Your task to perform on an android device: turn on notifications settings in the gmail app Image 0: 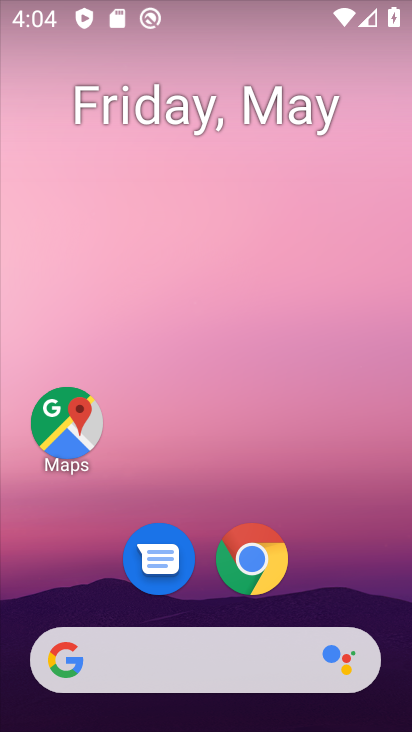
Step 0: drag from (319, 576) to (306, 327)
Your task to perform on an android device: turn on notifications settings in the gmail app Image 1: 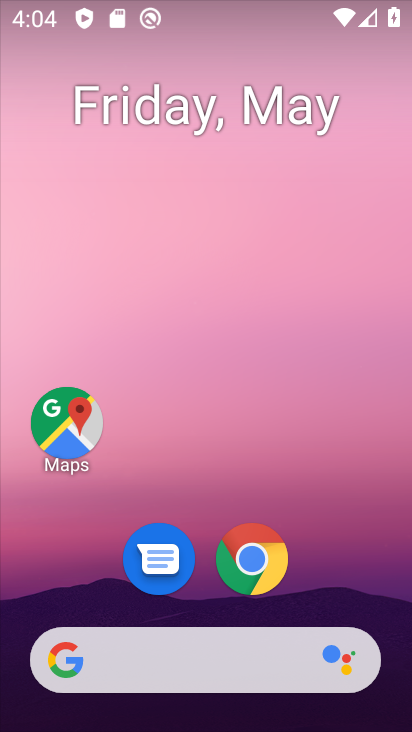
Step 1: drag from (343, 565) to (325, 447)
Your task to perform on an android device: turn on notifications settings in the gmail app Image 2: 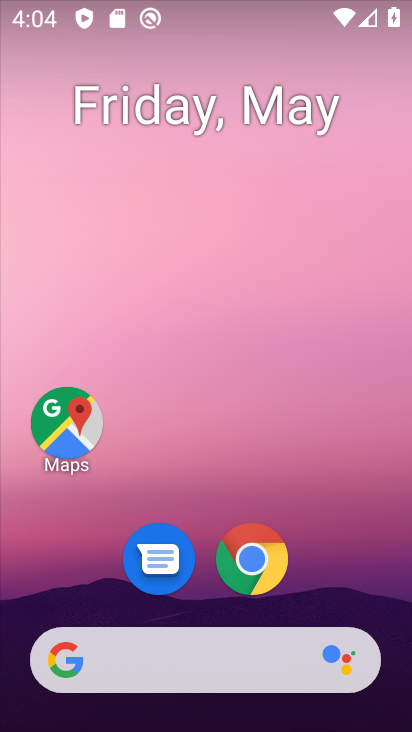
Step 2: drag from (342, 519) to (315, 205)
Your task to perform on an android device: turn on notifications settings in the gmail app Image 3: 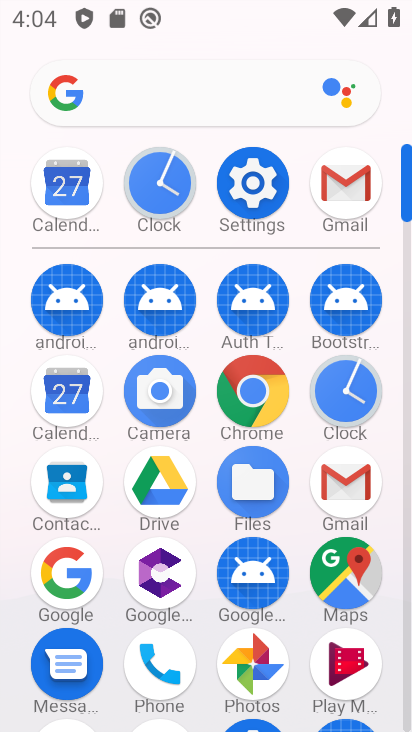
Step 3: click (335, 178)
Your task to perform on an android device: turn on notifications settings in the gmail app Image 4: 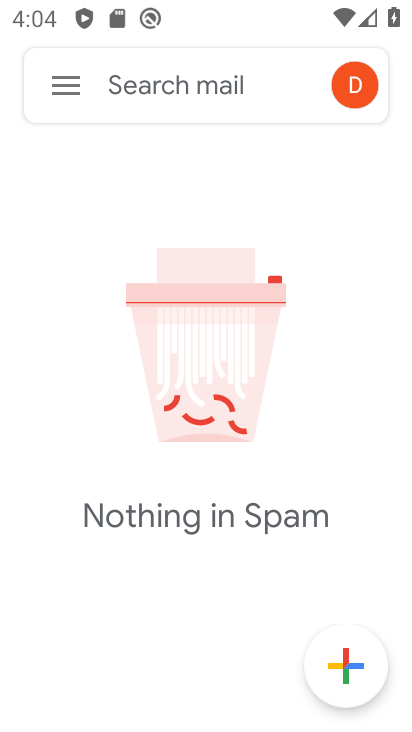
Step 4: click (36, 96)
Your task to perform on an android device: turn on notifications settings in the gmail app Image 5: 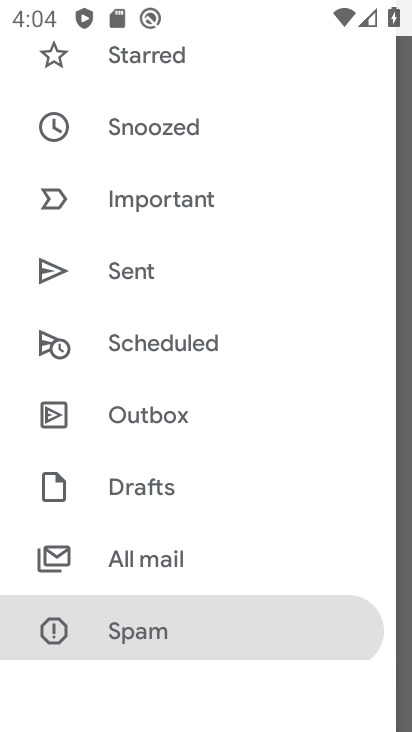
Step 5: drag from (257, 522) to (173, 1)
Your task to perform on an android device: turn on notifications settings in the gmail app Image 6: 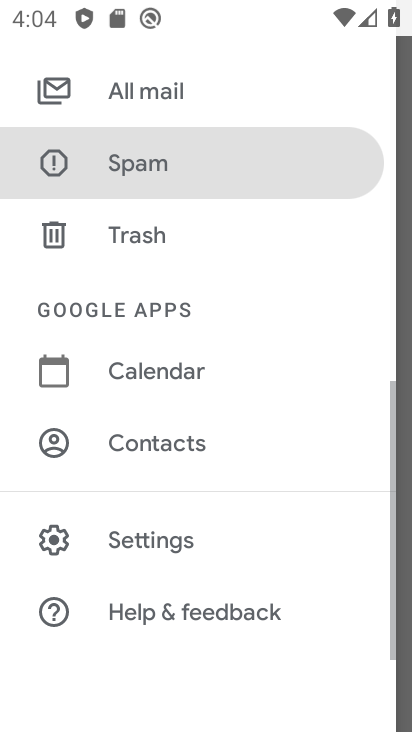
Step 6: click (250, 514)
Your task to perform on an android device: turn on notifications settings in the gmail app Image 7: 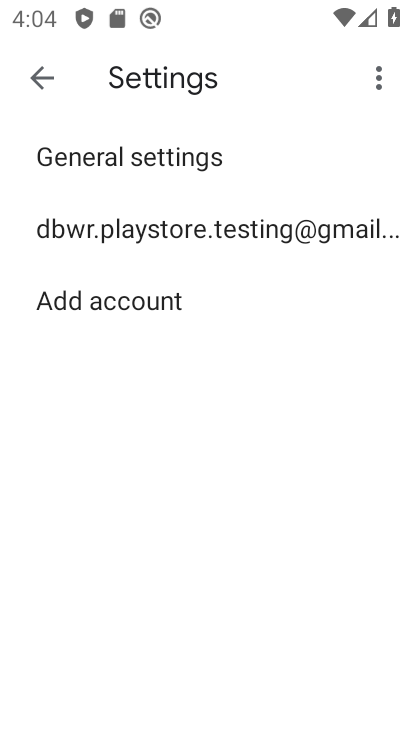
Step 7: click (128, 148)
Your task to perform on an android device: turn on notifications settings in the gmail app Image 8: 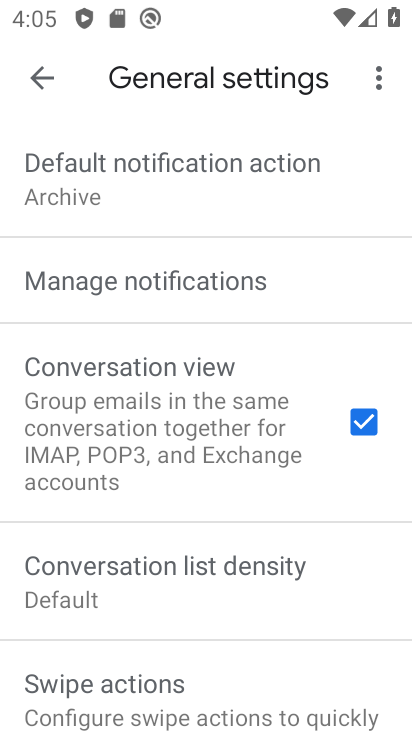
Step 8: drag from (213, 441) to (178, 11)
Your task to perform on an android device: turn on notifications settings in the gmail app Image 9: 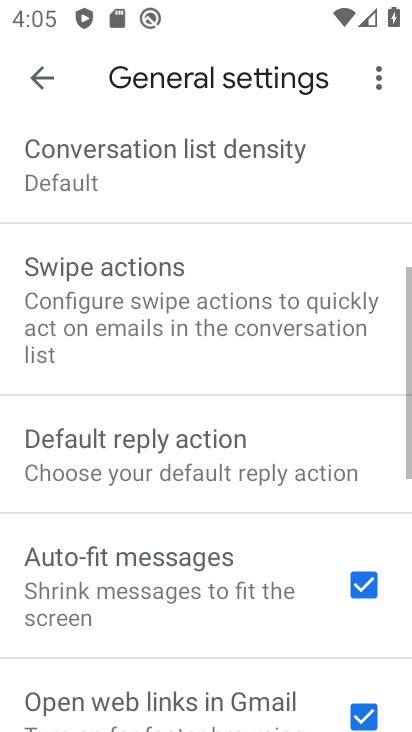
Step 9: drag from (237, 475) to (198, 19)
Your task to perform on an android device: turn on notifications settings in the gmail app Image 10: 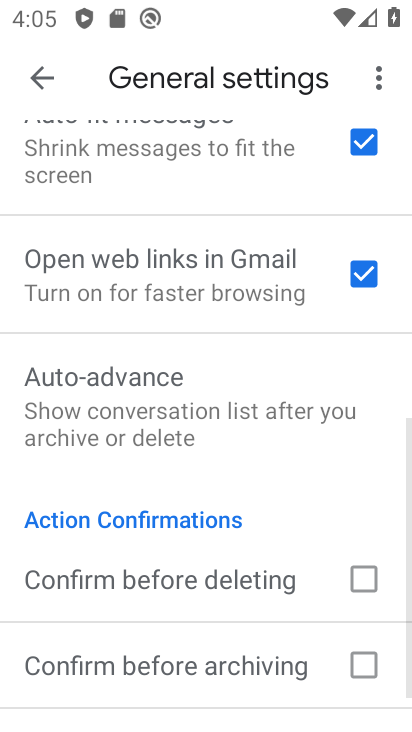
Step 10: drag from (143, 95) to (250, 648)
Your task to perform on an android device: turn on notifications settings in the gmail app Image 11: 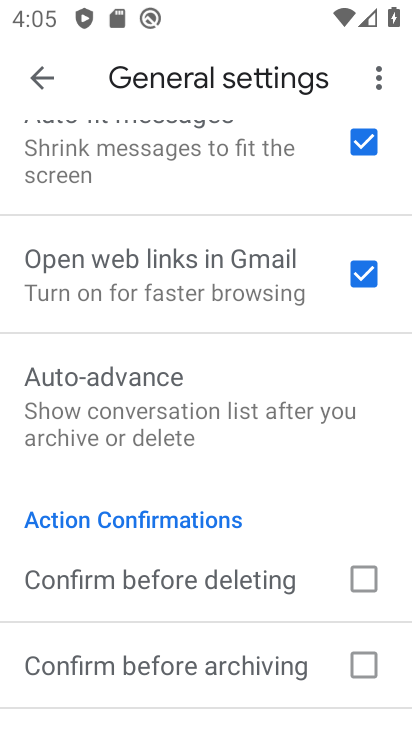
Step 11: drag from (182, 161) to (193, 612)
Your task to perform on an android device: turn on notifications settings in the gmail app Image 12: 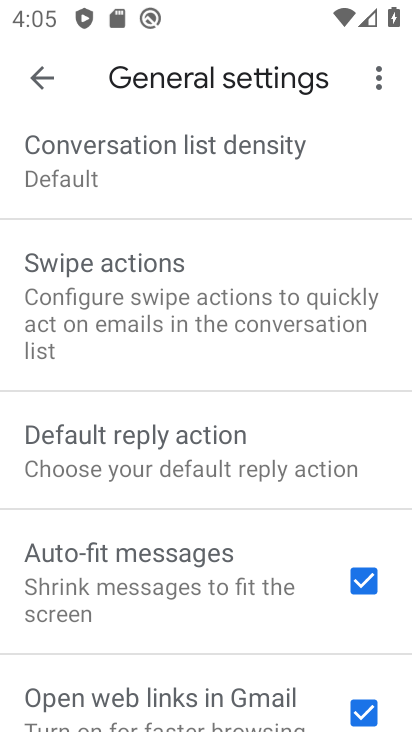
Step 12: drag from (200, 204) to (225, 582)
Your task to perform on an android device: turn on notifications settings in the gmail app Image 13: 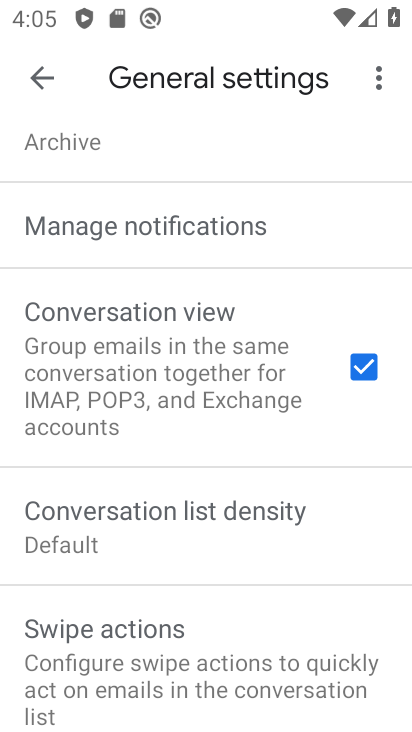
Step 13: click (155, 231)
Your task to perform on an android device: turn on notifications settings in the gmail app Image 14: 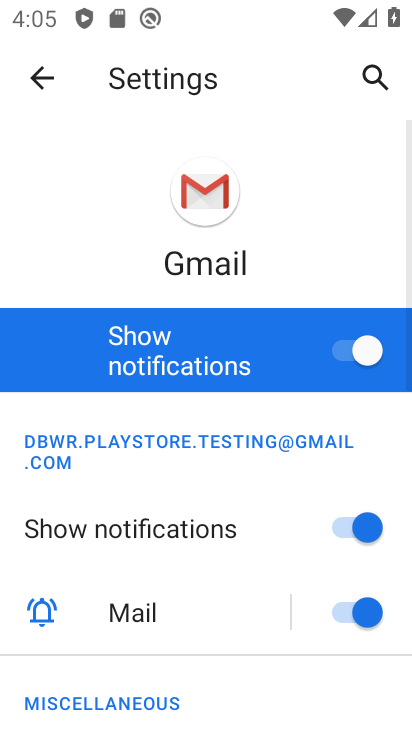
Step 14: task complete